Your task to perform on an android device: Go to Yahoo.com Image 0: 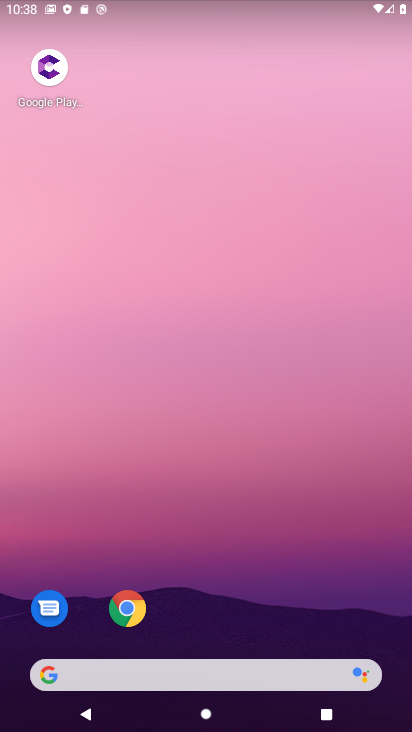
Step 0: drag from (301, 527) to (304, 110)
Your task to perform on an android device: Go to Yahoo.com Image 1: 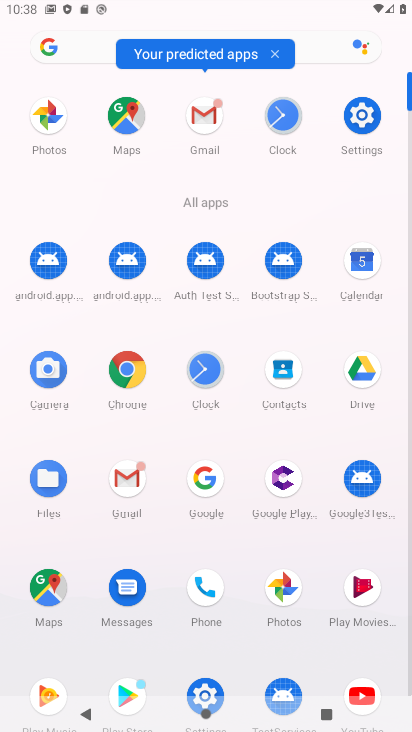
Step 1: click (129, 379)
Your task to perform on an android device: Go to Yahoo.com Image 2: 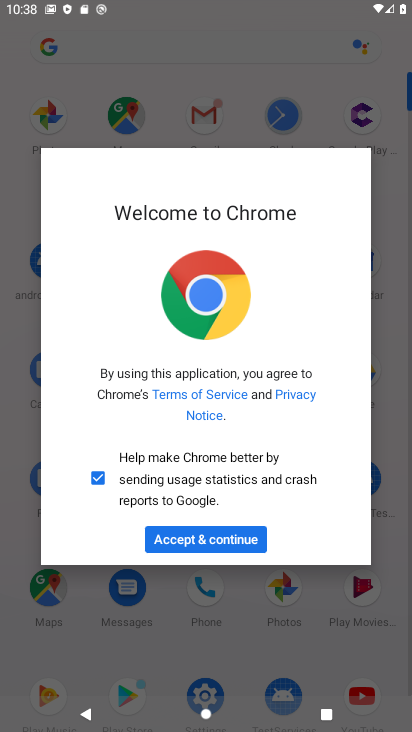
Step 2: click (189, 537)
Your task to perform on an android device: Go to Yahoo.com Image 3: 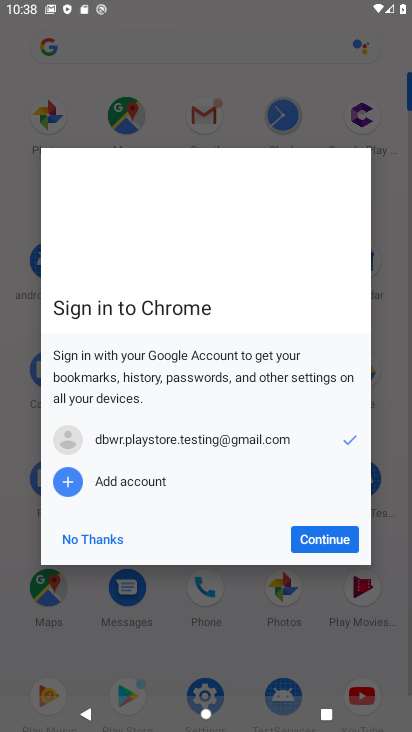
Step 3: click (332, 532)
Your task to perform on an android device: Go to Yahoo.com Image 4: 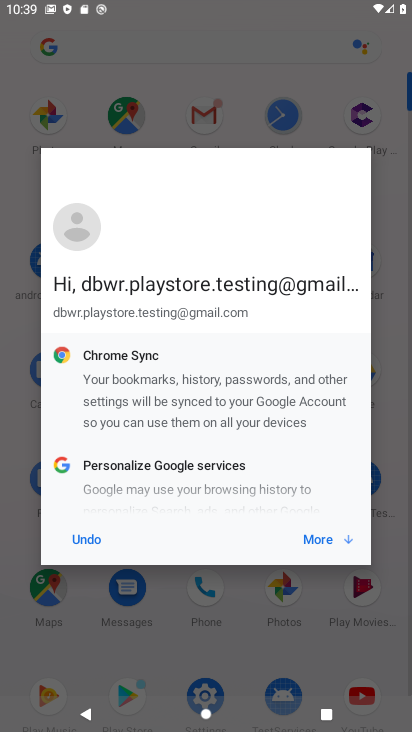
Step 4: click (335, 544)
Your task to perform on an android device: Go to Yahoo.com Image 5: 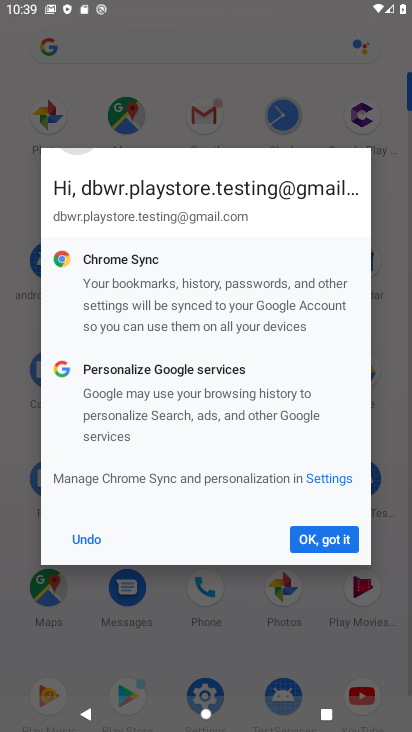
Step 5: click (334, 542)
Your task to perform on an android device: Go to Yahoo.com Image 6: 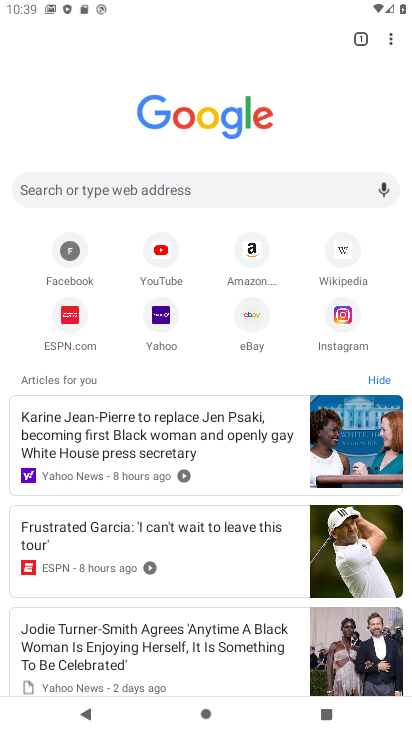
Step 6: click (163, 314)
Your task to perform on an android device: Go to Yahoo.com Image 7: 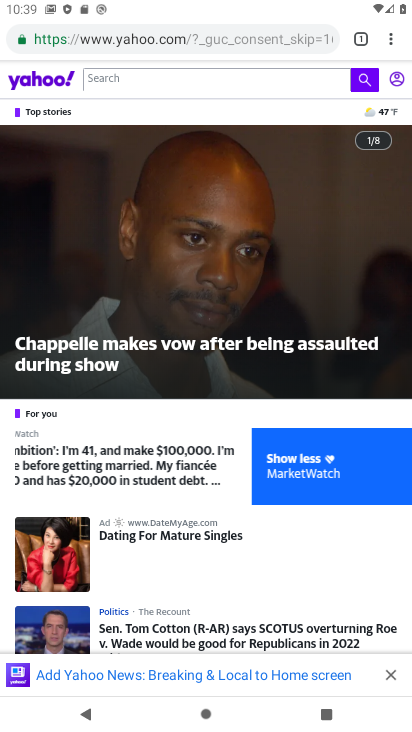
Step 7: task complete